Your task to perform on an android device: allow cookies in the chrome app Image 0: 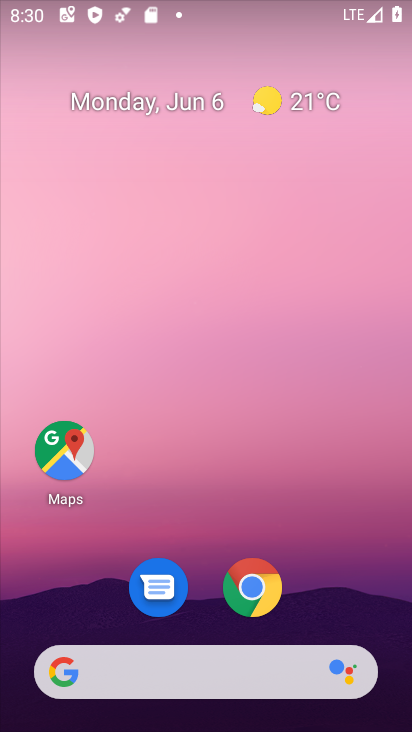
Step 0: click (251, 610)
Your task to perform on an android device: allow cookies in the chrome app Image 1: 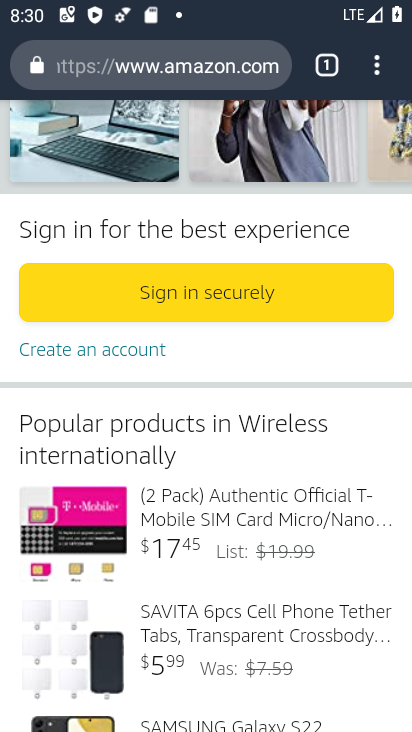
Step 1: click (376, 68)
Your task to perform on an android device: allow cookies in the chrome app Image 2: 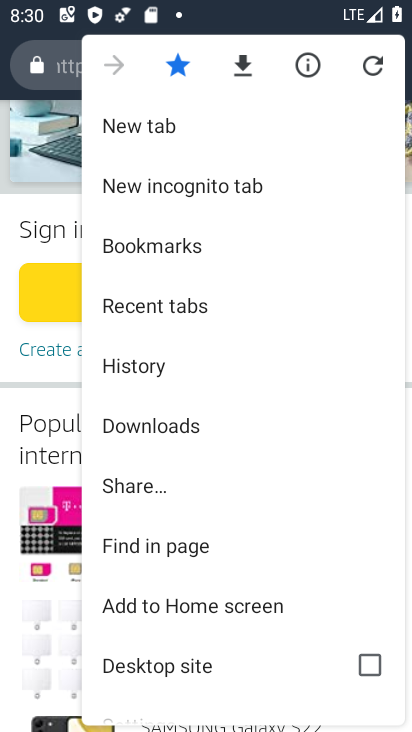
Step 2: drag from (192, 660) to (409, 60)
Your task to perform on an android device: allow cookies in the chrome app Image 3: 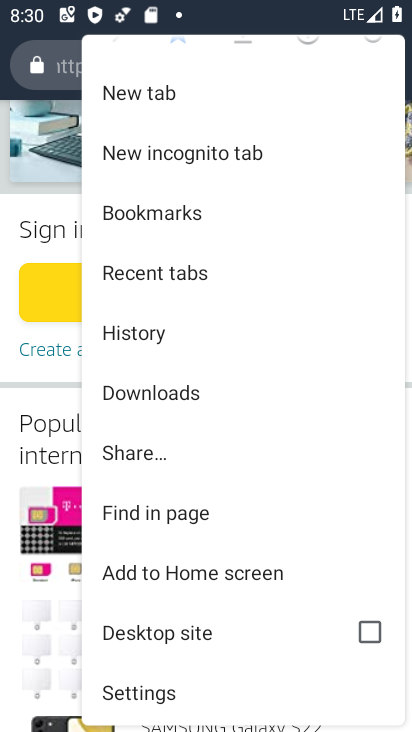
Step 3: click (143, 681)
Your task to perform on an android device: allow cookies in the chrome app Image 4: 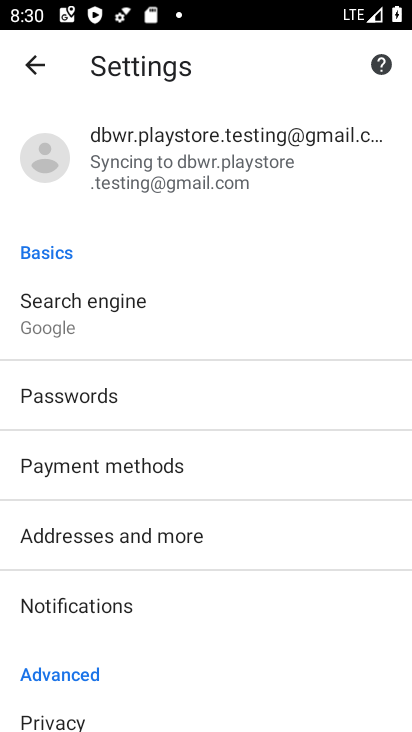
Step 4: drag from (164, 670) to (279, 8)
Your task to perform on an android device: allow cookies in the chrome app Image 5: 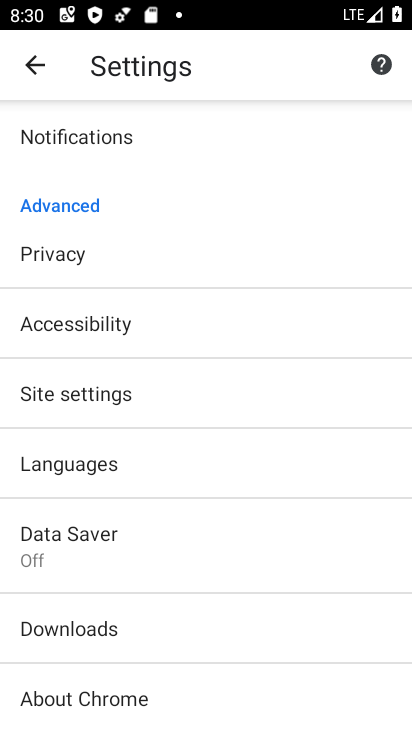
Step 5: click (201, 392)
Your task to perform on an android device: allow cookies in the chrome app Image 6: 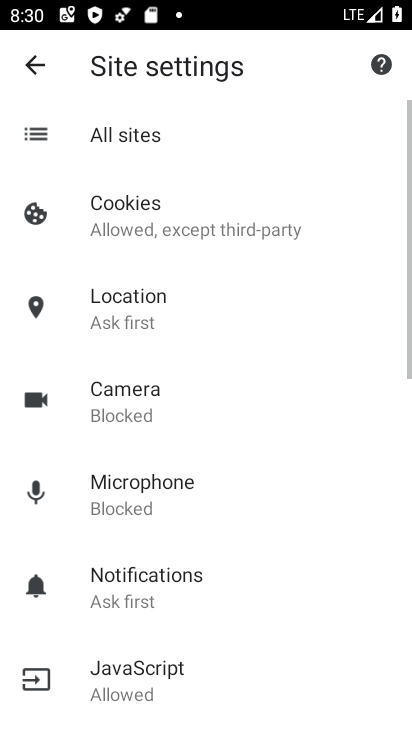
Step 6: click (200, 220)
Your task to perform on an android device: allow cookies in the chrome app Image 7: 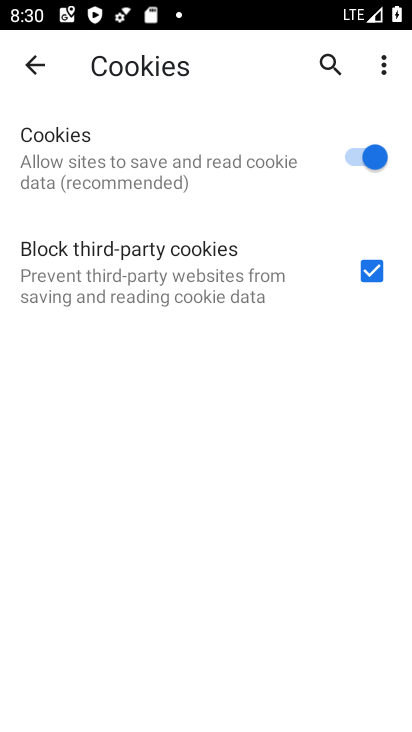
Step 7: task complete